Your task to perform on an android device: Open Wikipedia Image 0: 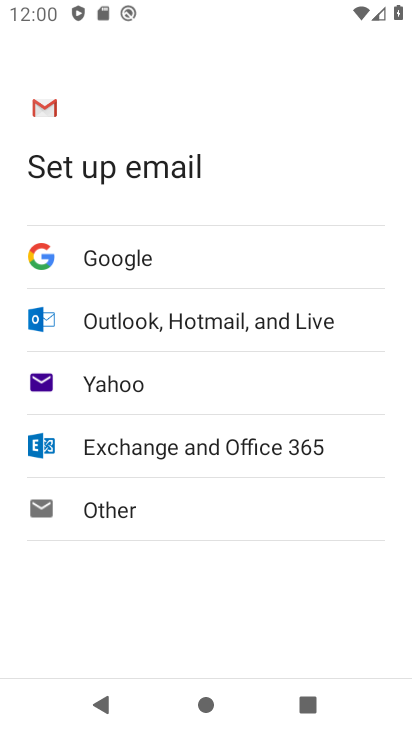
Step 0: press home button
Your task to perform on an android device: Open Wikipedia Image 1: 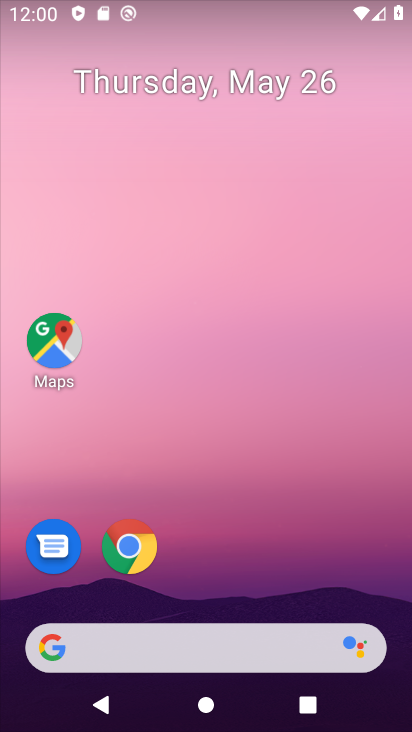
Step 1: drag from (333, 595) to (293, 89)
Your task to perform on an android device: Open Wikipedia Image 2: 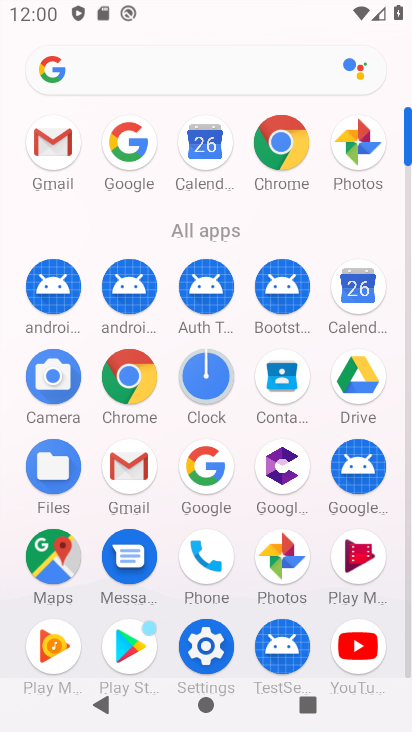
Step 2: click (279, 130)
Your task to perform on an android device: Open Wikipedia Image 3: 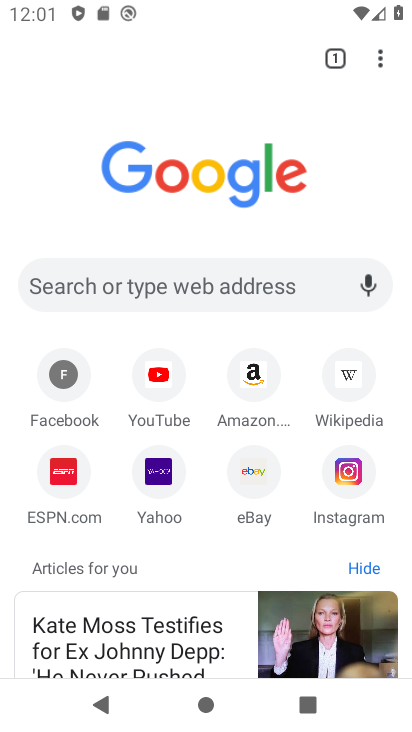
Step 3: click (351, 369)
Your task to perform on an android device: Open Wikipedia Image 4: 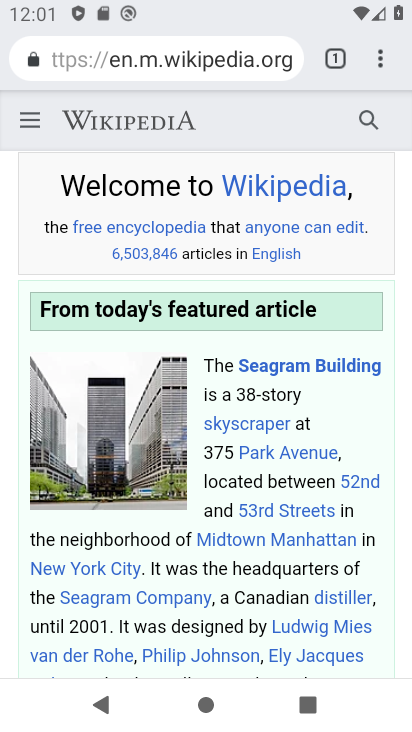
Step 4: task complete